Your task to perform on an android device: What's the weather going to be this weekend? Image 0: 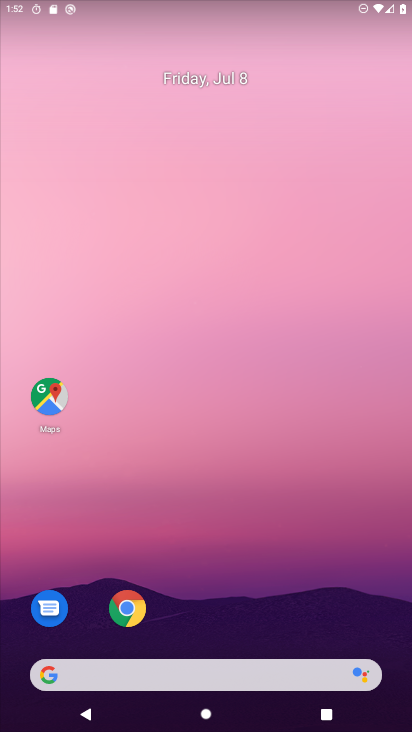
Step 0: drag from (230, 723) to (230, 155)
Your task to perform on an android device: What's the weather going to be this weekend? Image 1: 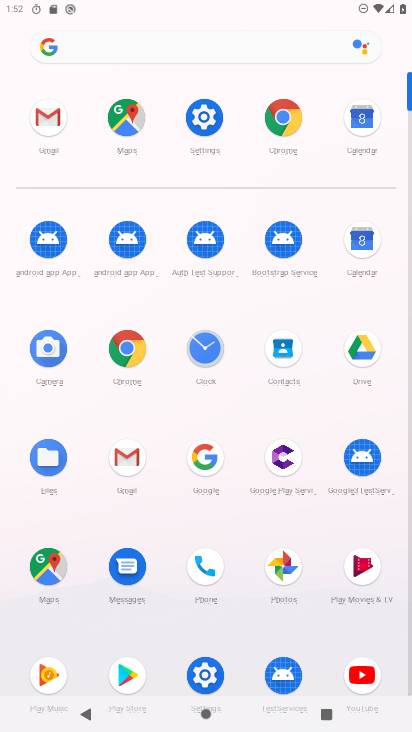
Step 1: click (205, 458)
Your task to perform on an android device: What's the weather going to be this weekend? Image 2: 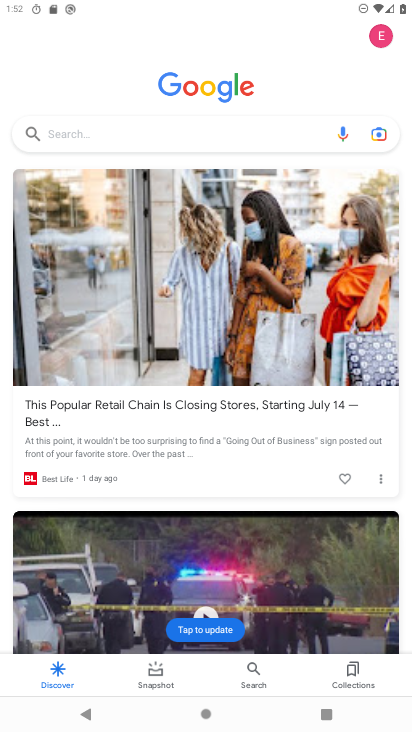
Step 2: click (172, 126)
Your task to perform on an android device: What's the weather going to be this weekend? Image 3: 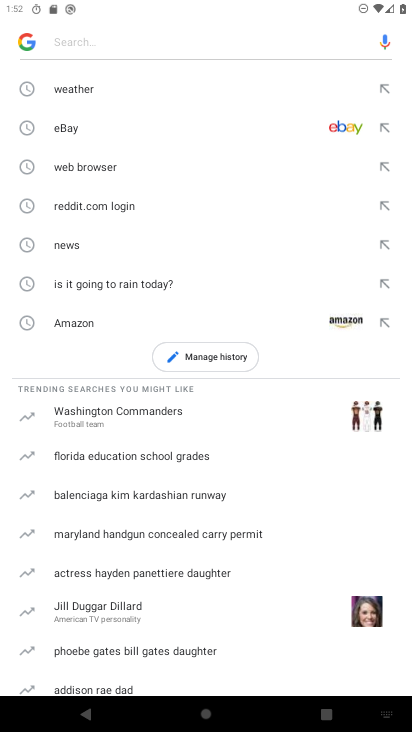
Step 3: click (70, 93)
Your task to perform on an android device: What's the weather going to be this weekend? Image 4: 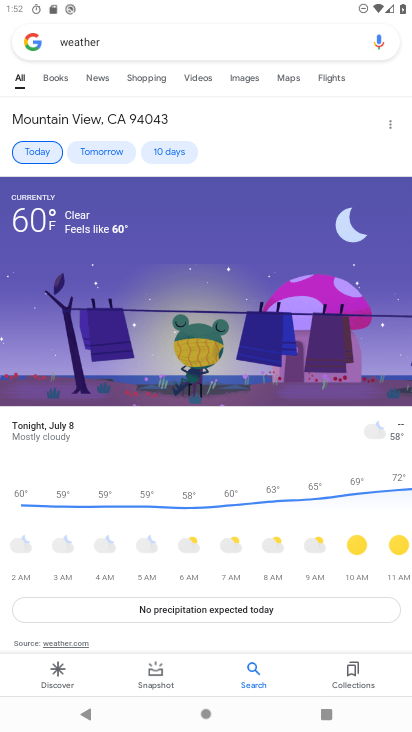
Step 4: click (166, 146)
Your task to perform on an android device: What's the weather going to be this weekend? Image 5: 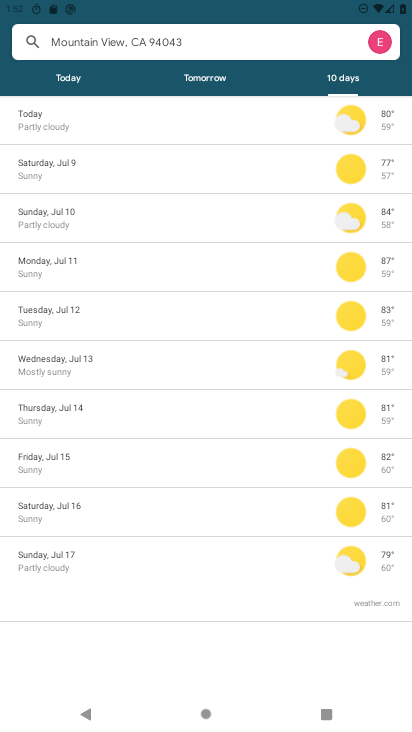
Step 5: task complete